Your task to perform on an android device: Open notification settings Image 0: 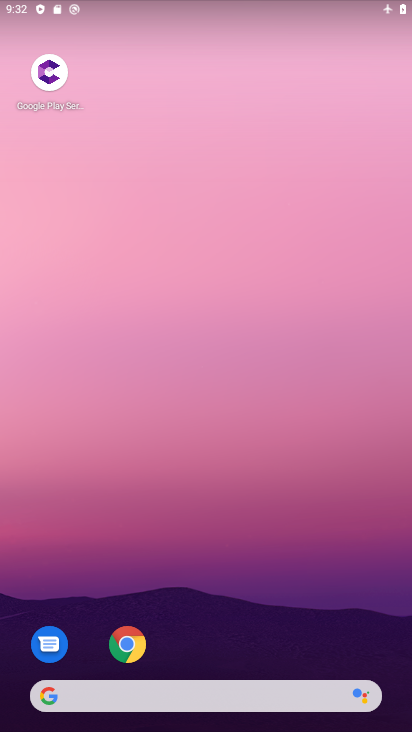
Step 0: press home button
Your task to perform on an android device: Open notification settings Image 1: 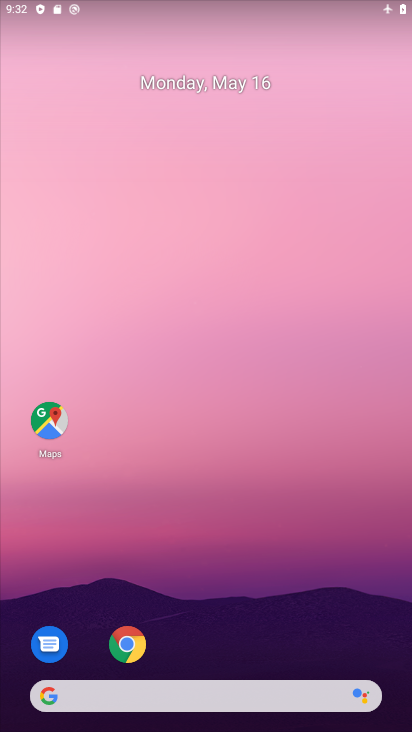
Step 1: drag from (91, 519) to (281, 76)
Your task to perform on an android device: Open notification settings Image 2: 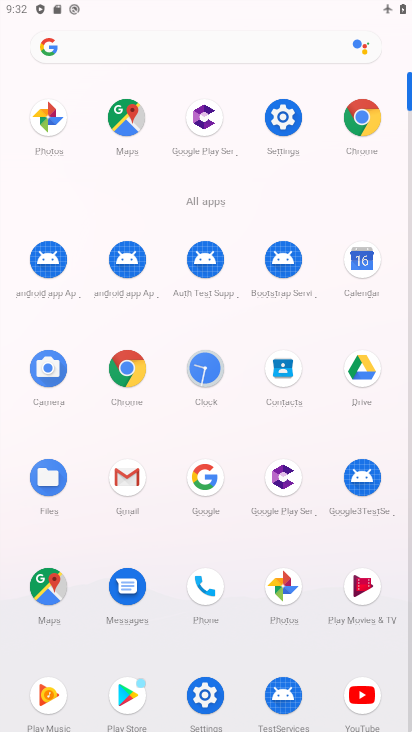
Step 2: click (295, 115)
Your task to perform on an android device: Open notification settings Image 3: 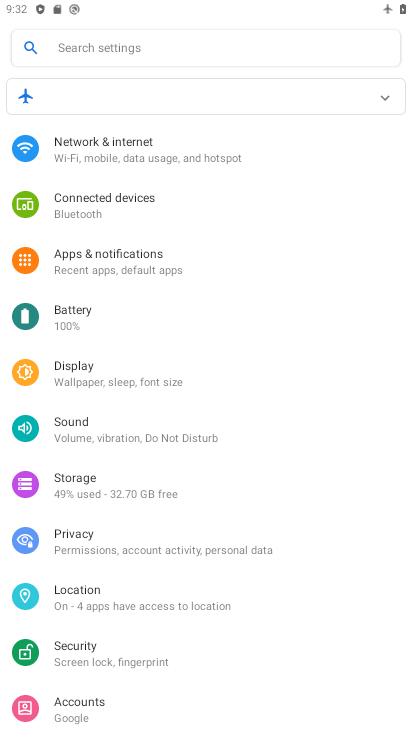
Step 3: click (125, 277)
Your task to perform on an android device: Open notification settings Image 4: 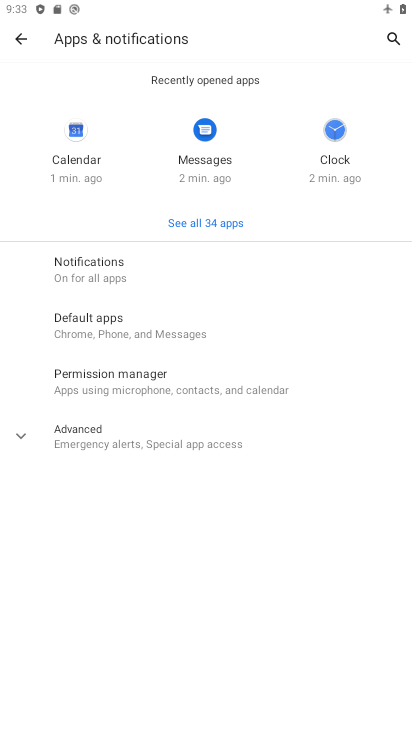
Step 4: click (145, 267)
Your task to perform on an android device: Open notification settings Image 5: 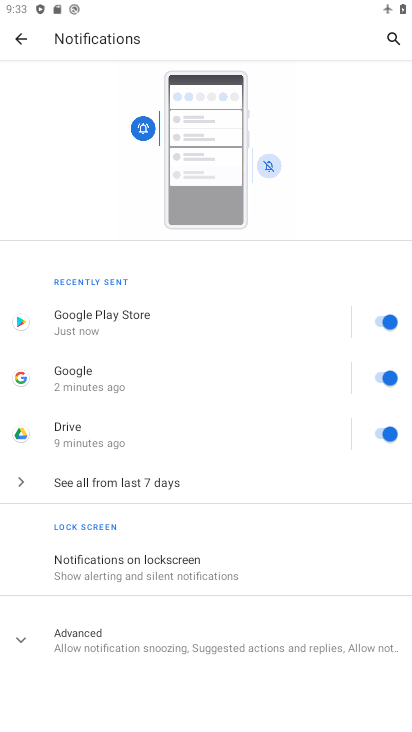
Step 5: task complete